Your task to perform on an android device: Add "usb-c to usb-a" to the cart on ebay, then select checkout. Image 0: 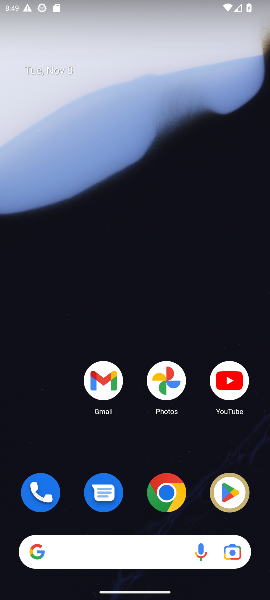
Step 0: click (165, 489)
Your task to perform on an android device: Add "usb-c to usb-a" to the cart on ebay, then select checkout. Image 1: 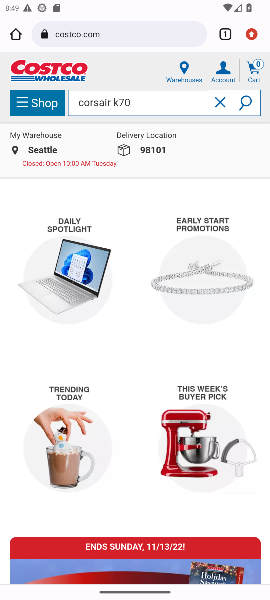
Step 1: click (152, 28)
Your task to perform on an android device: Add "usb-c to usb-a" to the cart on ebay, then select checkout. Image 2: 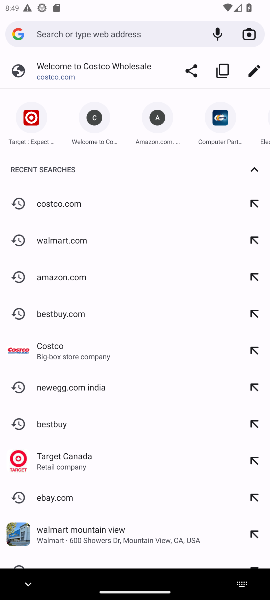
Step 2: click (103, 25)
Your task to perform on an android device: Add "usb-c to usb-a" to the cart on ebay, then select checkout. Image 3: 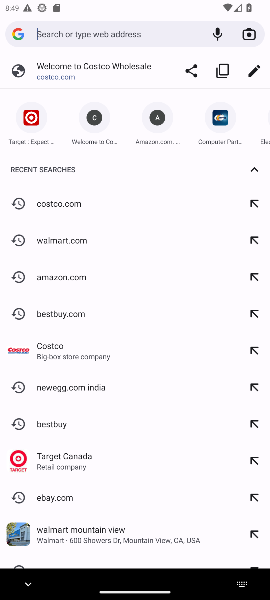
Step 3: type "ebay"
Your task to perform on an android device: Add "usb-c to usb-a" to the cart on ebay, then select checkout. Image 4: 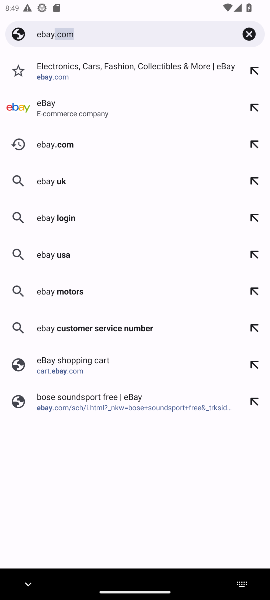
Step 4: click (132, 28)
Your task to perform on an android device: Add "usb-c to usb-a" to the cart on ebay, then select checkout. Image 5: 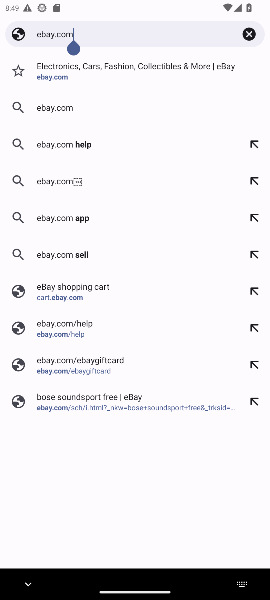
Step 5: click (68, 102)
Your task to perform on an android device: Add "usb-c to usb-a" to the cart on ebay, then select checkout. Image 6: 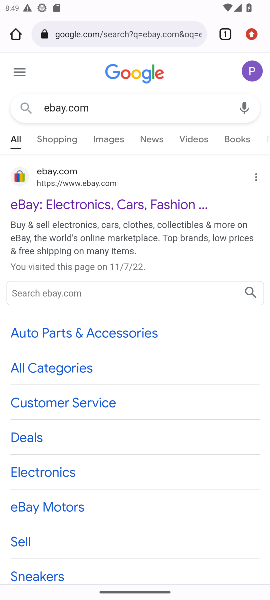
Step 6: click (83, 181)
Your task to perform on an android device: Add "usb-c to usb-a" to the cart on ebay, then select checkout. Image 7: 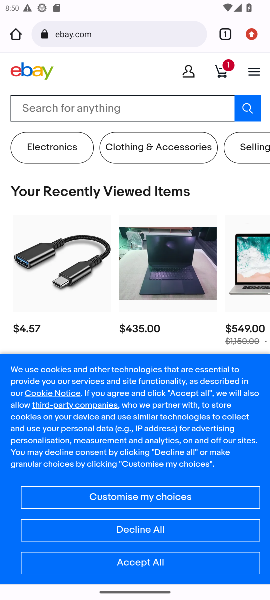
Step 7: click (171, 106)
Your task to perform on an android device: Add "usb-c to usb-a" to the cart on ebay, then select checkout. Image 8: 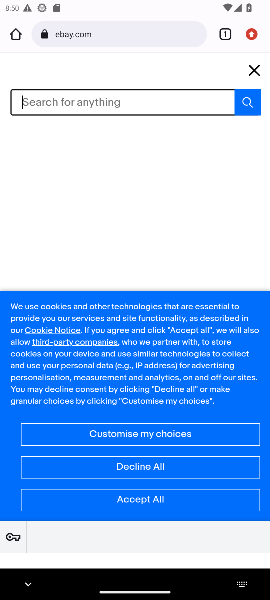
Step 8: type "usb-c to usb-a"
Your task to perform on an android device: Add "usb-c to usb-a" to the cart on ebay, then select checkout. Image 9: 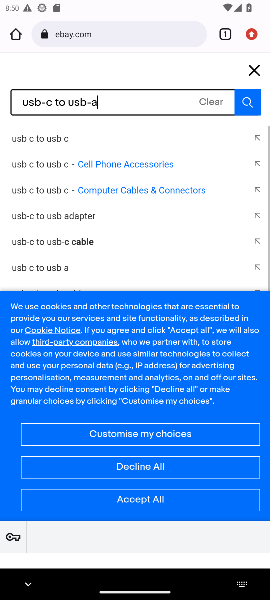
Step 9: click (47, 135)
Your task to perform on an android device: Add "usb-c to usb-a" to the cart on ebay, then select checkout. Image 10: 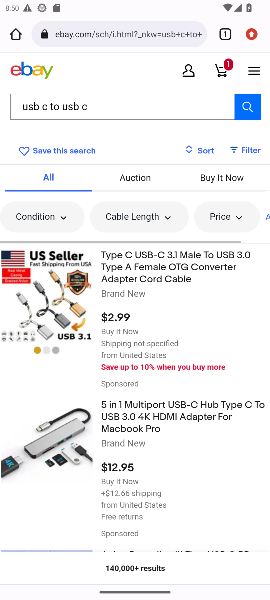
Step 10: click (59, 295)
Your task to perform on an android device: Add "usb-c to usb-a" to the cart on ebay, then select checkout. Image 11: 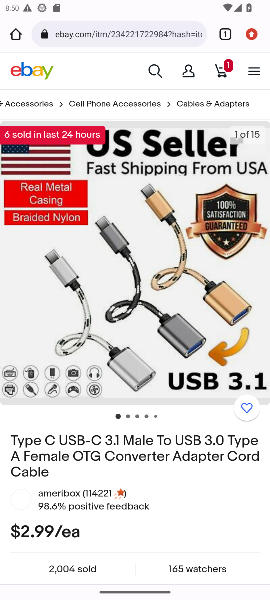
Step 11: drag from (175, 422) to (183, 244)
Your task to perform on an android device: Add "usb-c to usb-a" to the cart on ebay, then select checkout. Image 12: 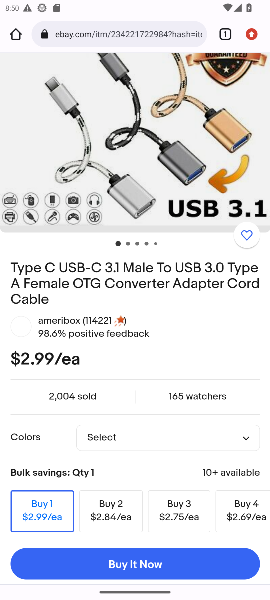
Step 12: drag from (183, 481) to (175, 221)
Your task to perform on an android device: Add "usb-c to usb-a" to the cart on ebay, then select checkout. Image 13: 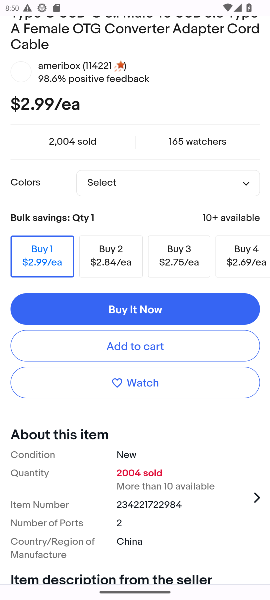
Step 13: click (136, 344)
Your task to perform on an android device: Add "usb-c to usb-a" to the cart on ebay, then select checkout. Image 14: 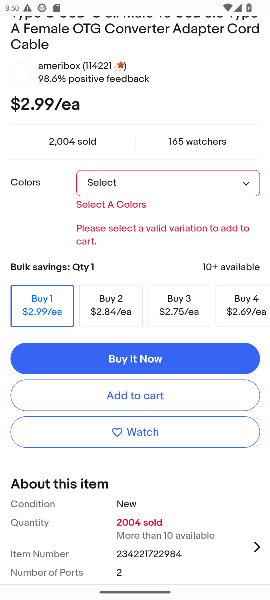
Step 14: press back button
Your task to perform on an android device: Add "usb-c to usb-a" to the cart on ebay, then select checkout. Image 15: 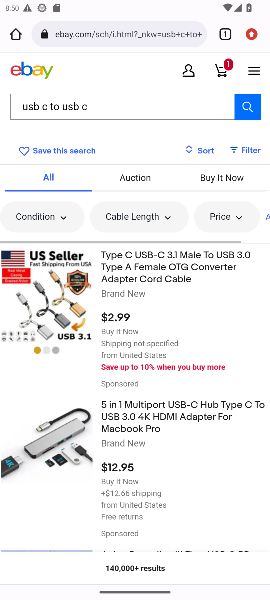
Step 15: click (62, 412)
Your task to perform on an android device: Add "usb-c to usb-a" to the cart on ebay, then select checkout. Image 16: 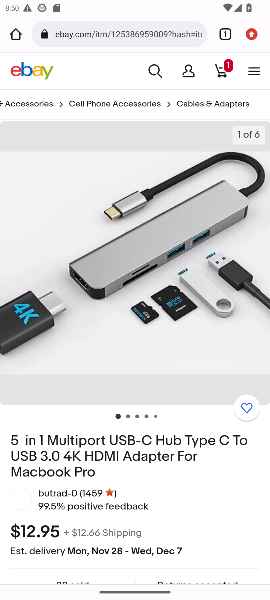
Step 16: press back button
Your task to perform on an android device: Add "usb-c to usb-a" to the cart on ebay, then select checkout. Image 17: 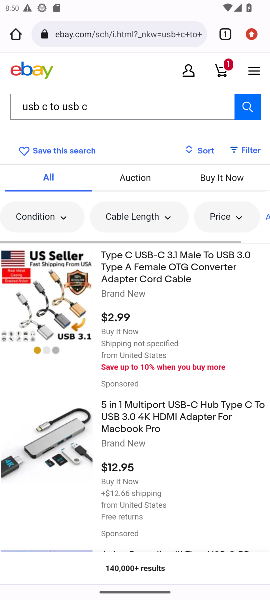
Step 17: drag from (147, 434) to (143, 180)
Your task to perform on an android device: Add "usb-c to usb-a" to the cart on ebay, then select checkout. Image 18: 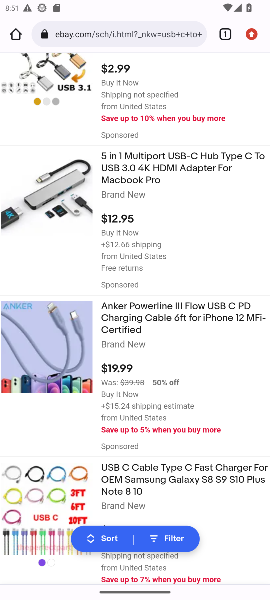
Step 18: drag from (182, 342) to (211, 205)
Your task to perform on an android device: Add "usb-c to usb-a" to the cart on ebay, then select checkout. Image 19: 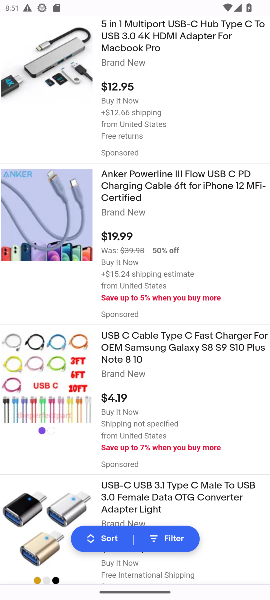
Step 19: drag from (125, 463) to (154, 309)
Your task to perform on an android device: Add "usb-c to usb-a" to the cart on ebay, then select checkout. Image 20: 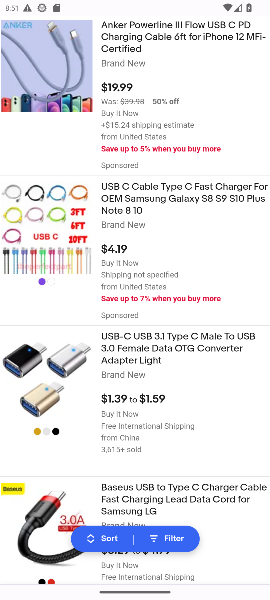
Step 20: drag from (195, 384) to (192, 275)
Your task to perform on an android device: Add "usb-c to usb-a" to the cart on ebay, then select checkout. Image 21: 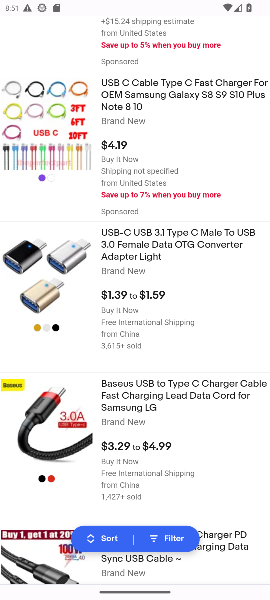
Step 21: click (41, 247)
Your task to perform on an android device: Add "usb-c to usb-a" to the cart on ebay, then select checkout. Image 22: 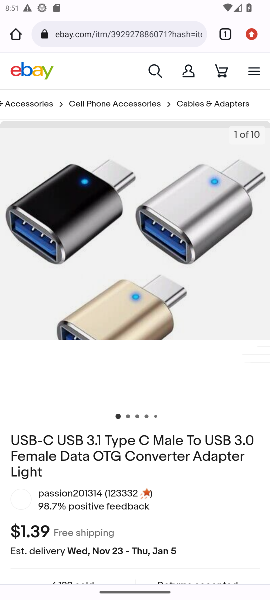
Step 22: task complete